Your task to perform on an android device: see tabs open on other devices in the chrome app Image 0: 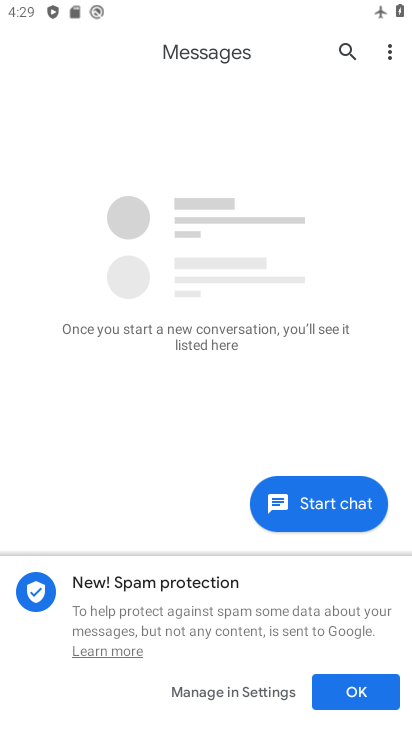
Step 0: press home button
Your task to perform on an android device: see tabs open on other devices in the chrome app Image 1: 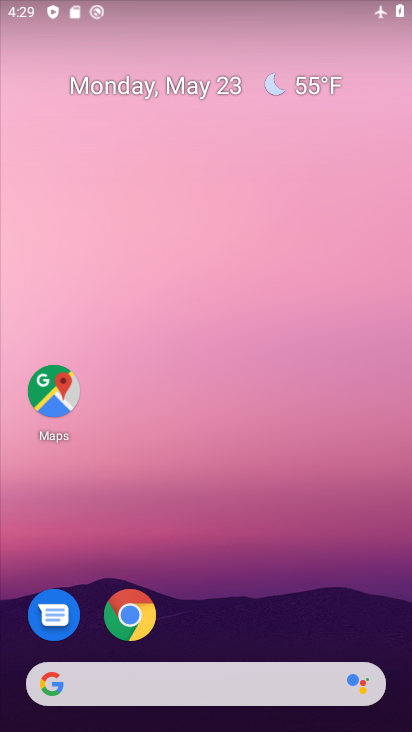
Step 1: drag from (382, 629) to (379, 315)
Your task to perform on an android device: see tabs open on other devices in the chrome app Image 2: 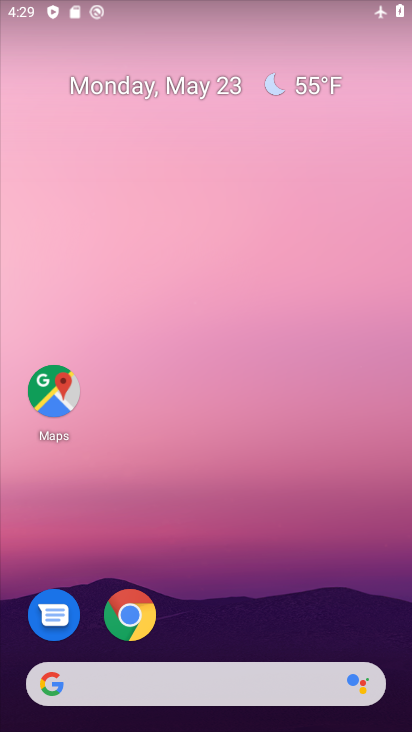
Step 2: drag from (380, 619) to (369, 308)
Your task to perform on an android device: see tabs open on other devices in the chrome app Image 3: 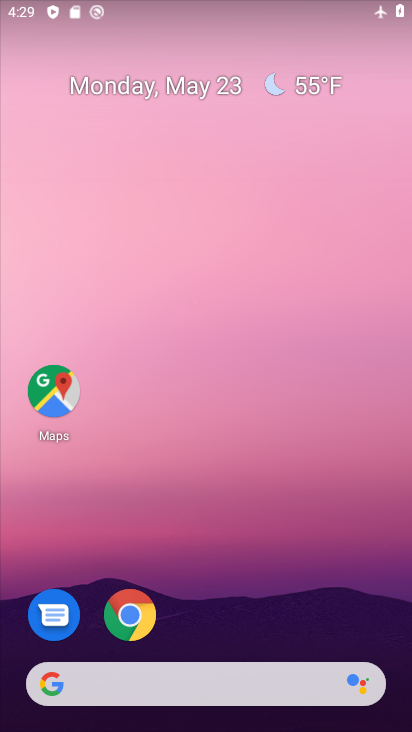
Step 3: drag from (374, 607) to (371, 219)
Your task to perform on an android device: see tabs open on other devices in the chrome app Image 4: 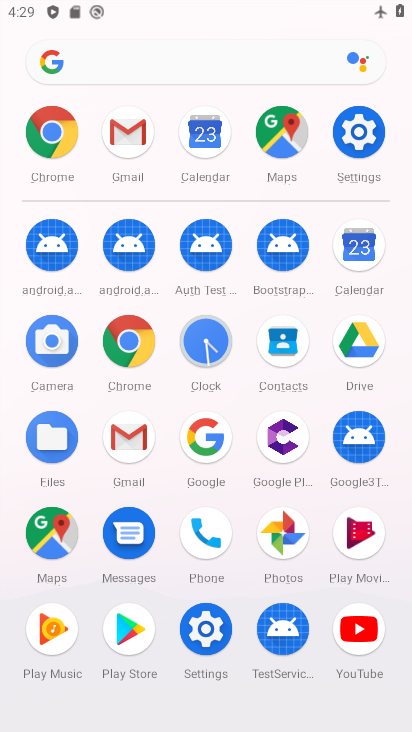
Step 4: click (138, 361)
Your task to perform on an android device: see tabs open on other devices in the chrome app Image 5: 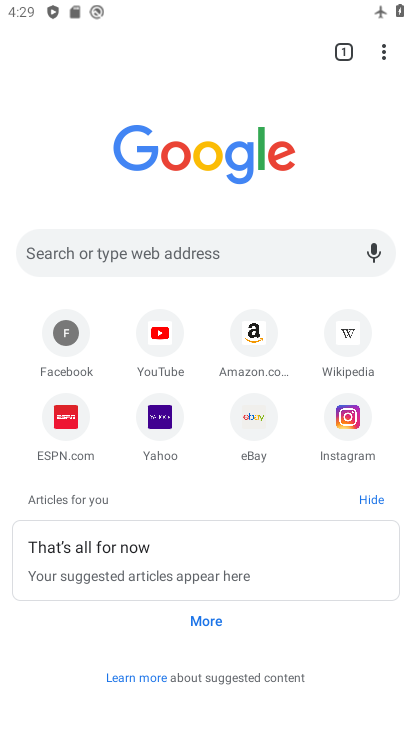
Step 5: click (384, 55)
Your task to perform on an android device: see tabs open on other devices in the chrome app Image 6: 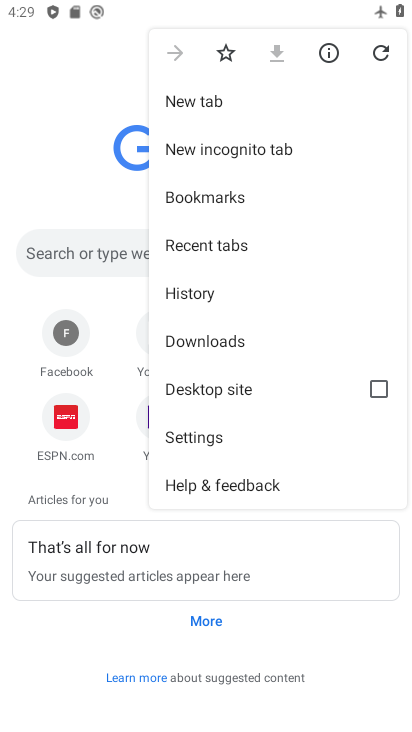
Step 6: click (258, 257)
Your task to perform on an android device: see tabs open on other devices in the chrome app Image 7: 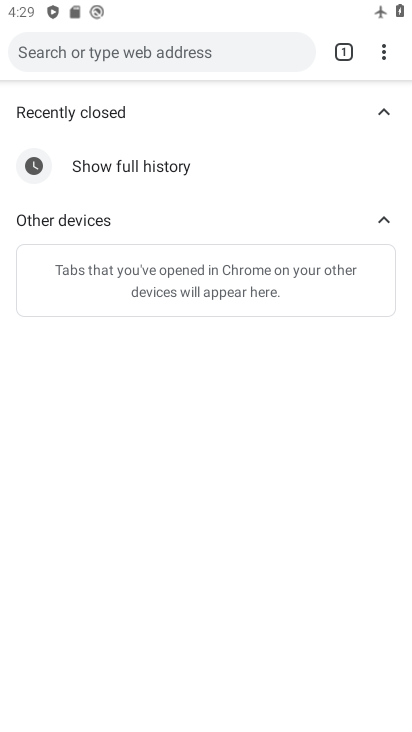
Step 7: click (348, 59)
Your task to perform on an android device: see tabs open on other devices in the chrome app Image 8: 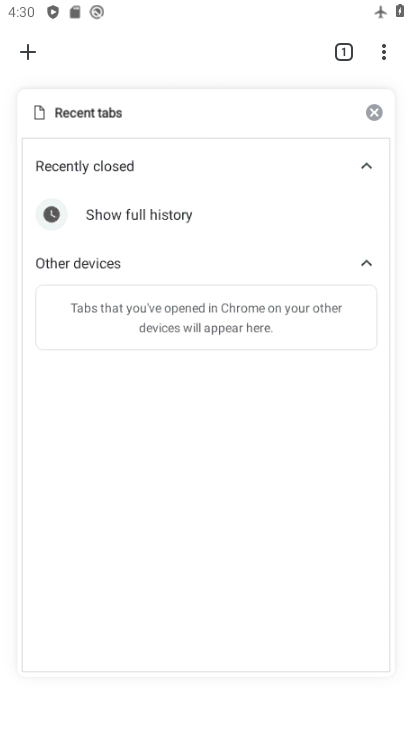
Step 8: task complete